Your task to perform on an android device: Search for vegetarian restaurants on Maps Image 0: 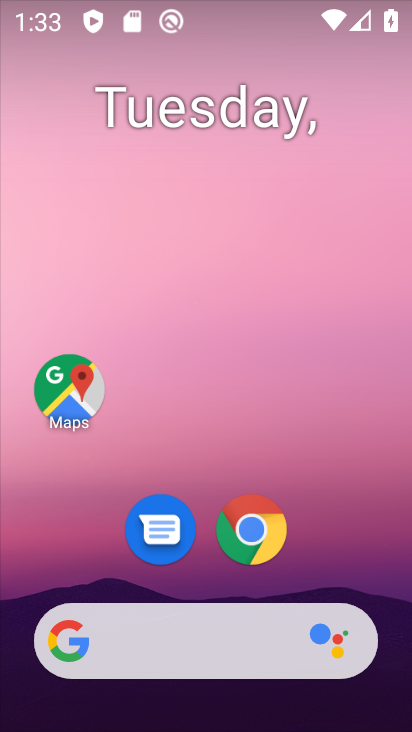
Step 0: drag from (392, 616) to (245, 32)
Your task to perform on an android device: Search for vegetarian restaurants on Maps Image 1: 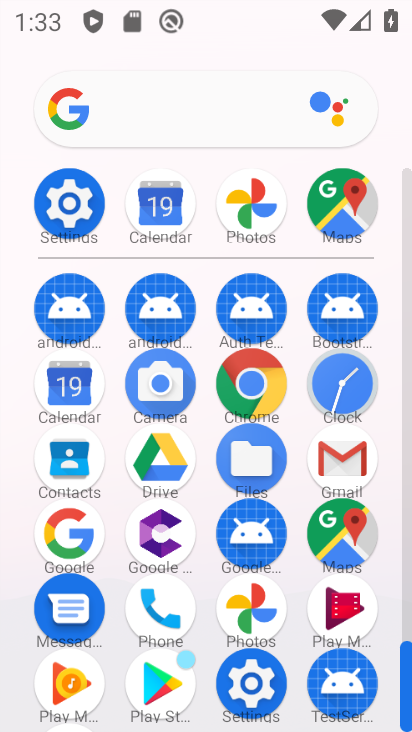
Step 1: click (341, 536)
Your task to perform on an android device: Search for vegetarian restaurants on Maps Image 2: 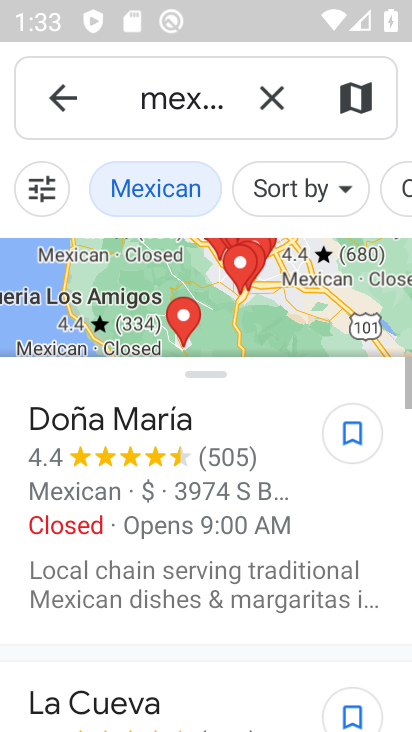
Step 2: click (277, 93)
Your task to perform on an android device: Search for vegetarian restaurants on Maps Image 3: 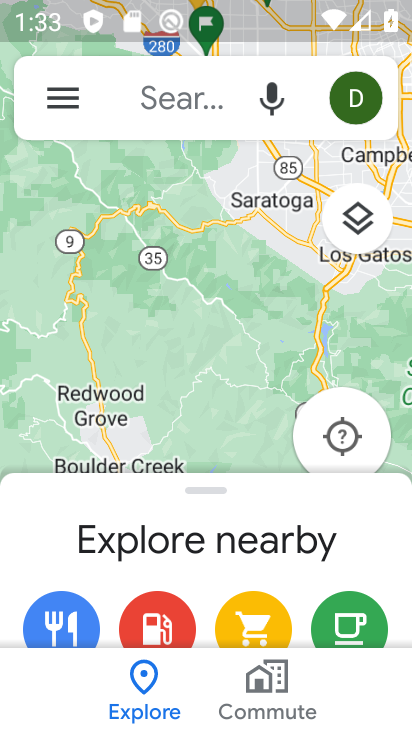
Step 3: click (166, 93)
Your task to perform on an android device: Search for vegetarian restaurants on Maps Image 4: 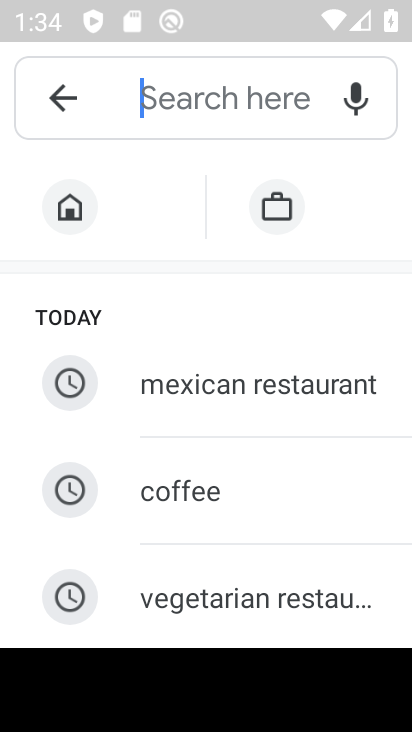
Step 4: click (167, 578)
Your task to perform on an android device: Search for vegetarian restaurants on Maps Image 5: 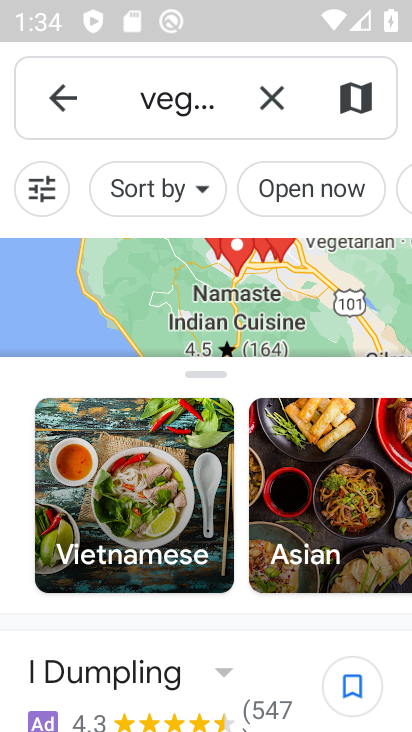
Step 5: task complete